Your task to perform on an android device: Show the shopping cart on target.com. Image 0: 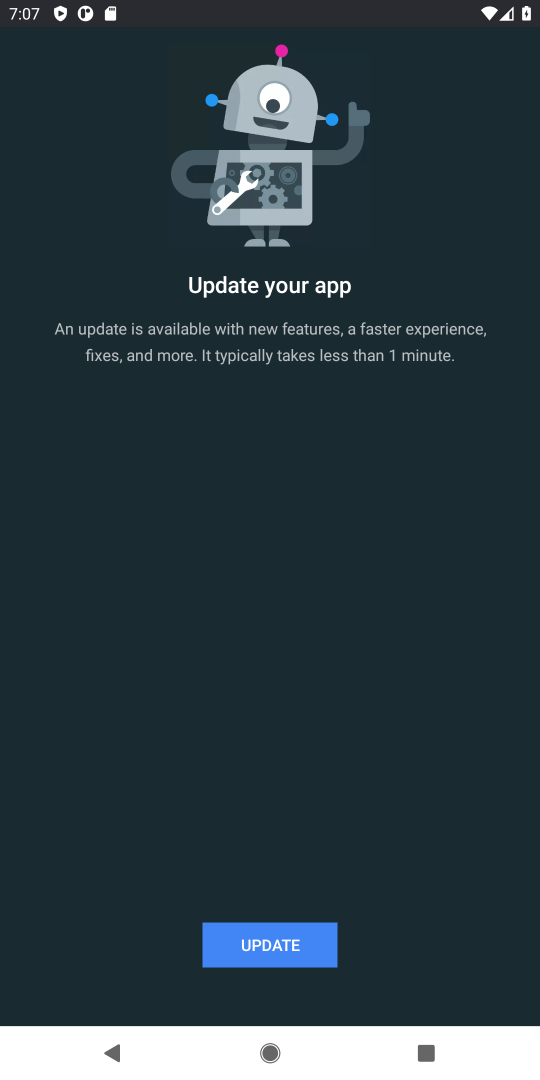
Step 0: press home button
Your task to perform on an android device: Show the shopping cart on target.com. Image 1: 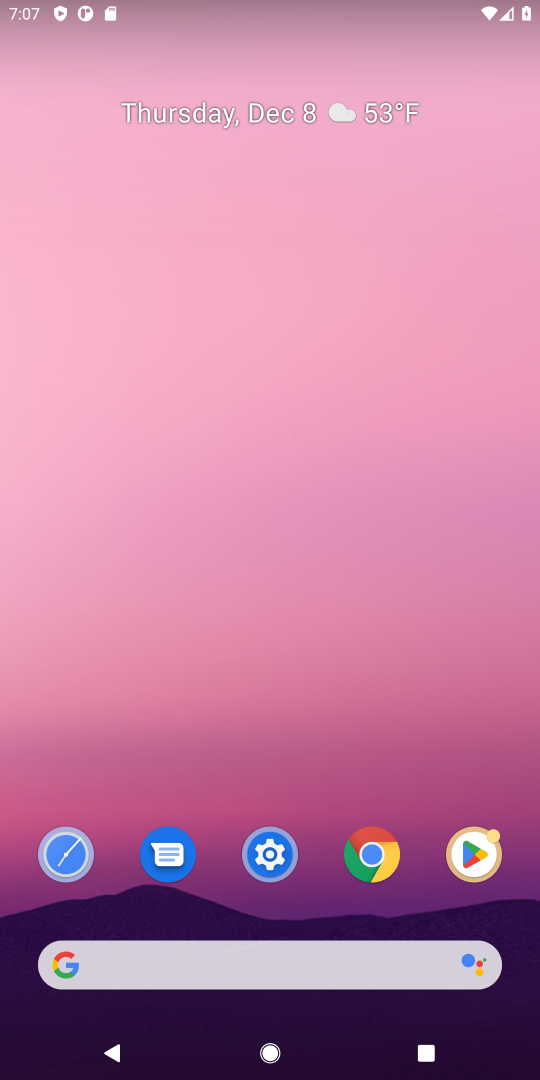
Step 1: click (102, 955)
Your task to perform on an android device: Show the shopping cart on target.com. Image 2: 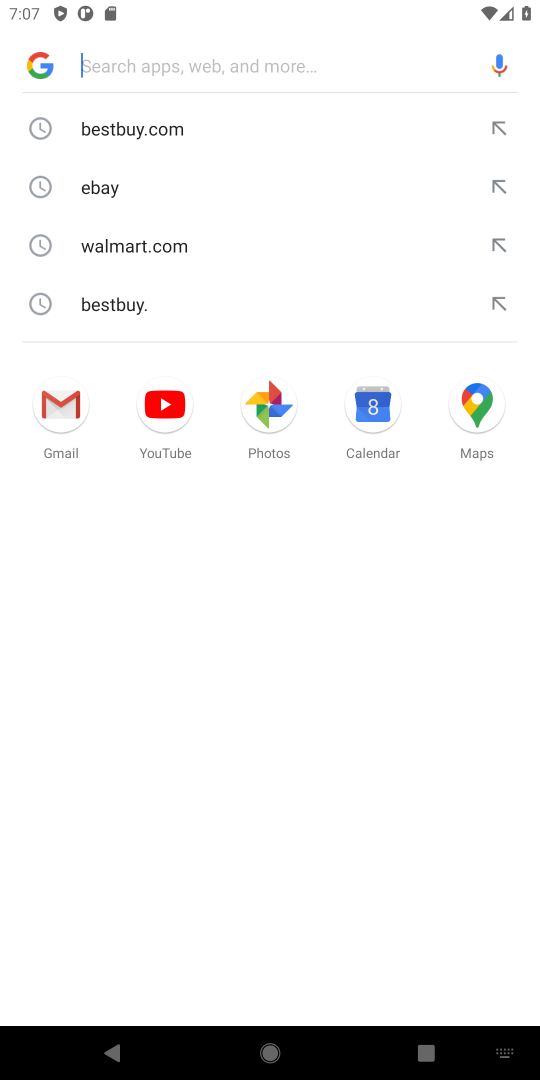
Step 2: type "target.com"
Your task to perform on an android device: Show the shopping cart on target.com. Image 3: 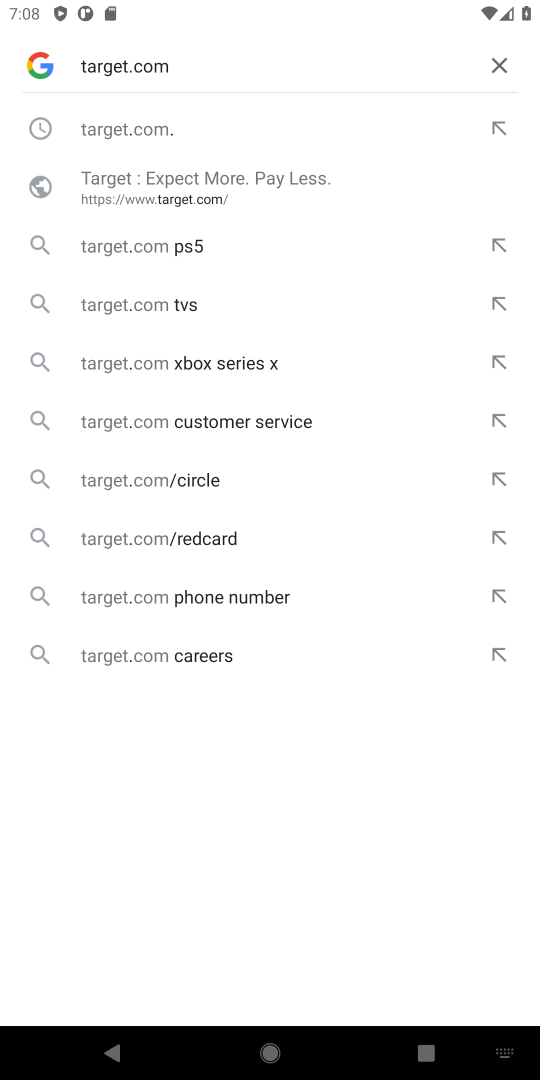
Step 3: press enter
Your task to perform on an android device: Show the shopping cart on target.com. Image 4: 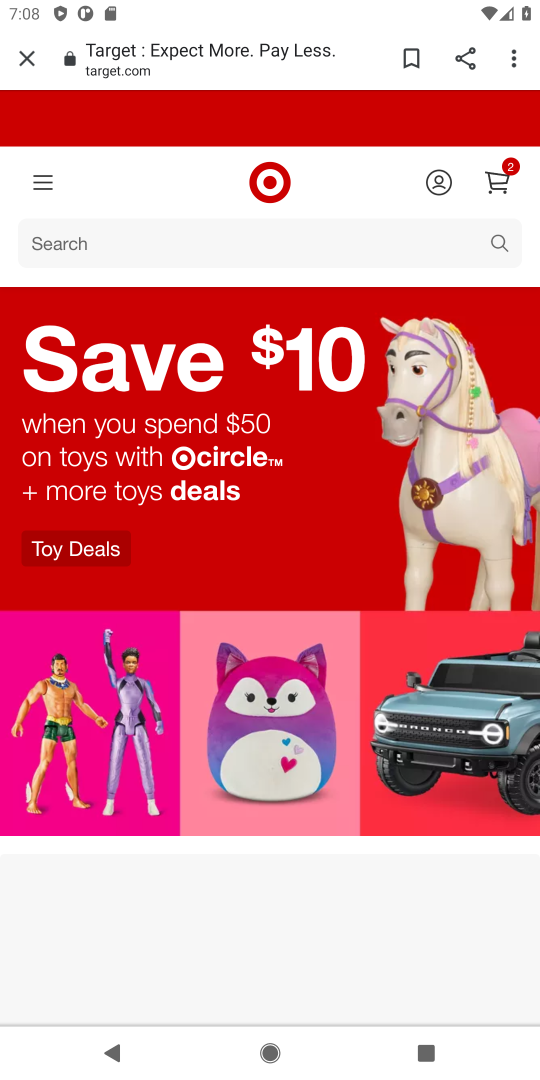
Step 4: click (501, 171)
Your task to perform on an android device: Show the shopping cart on target.com. Image 5: 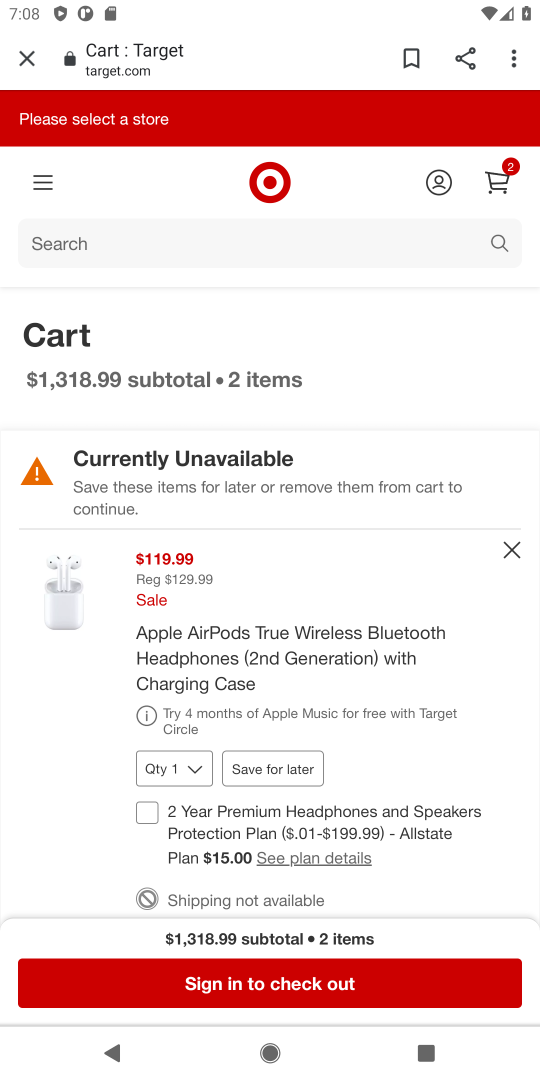
Step 5: task complete